Your task to perform on an android device: open a bookmark in the chrome app Image 0: 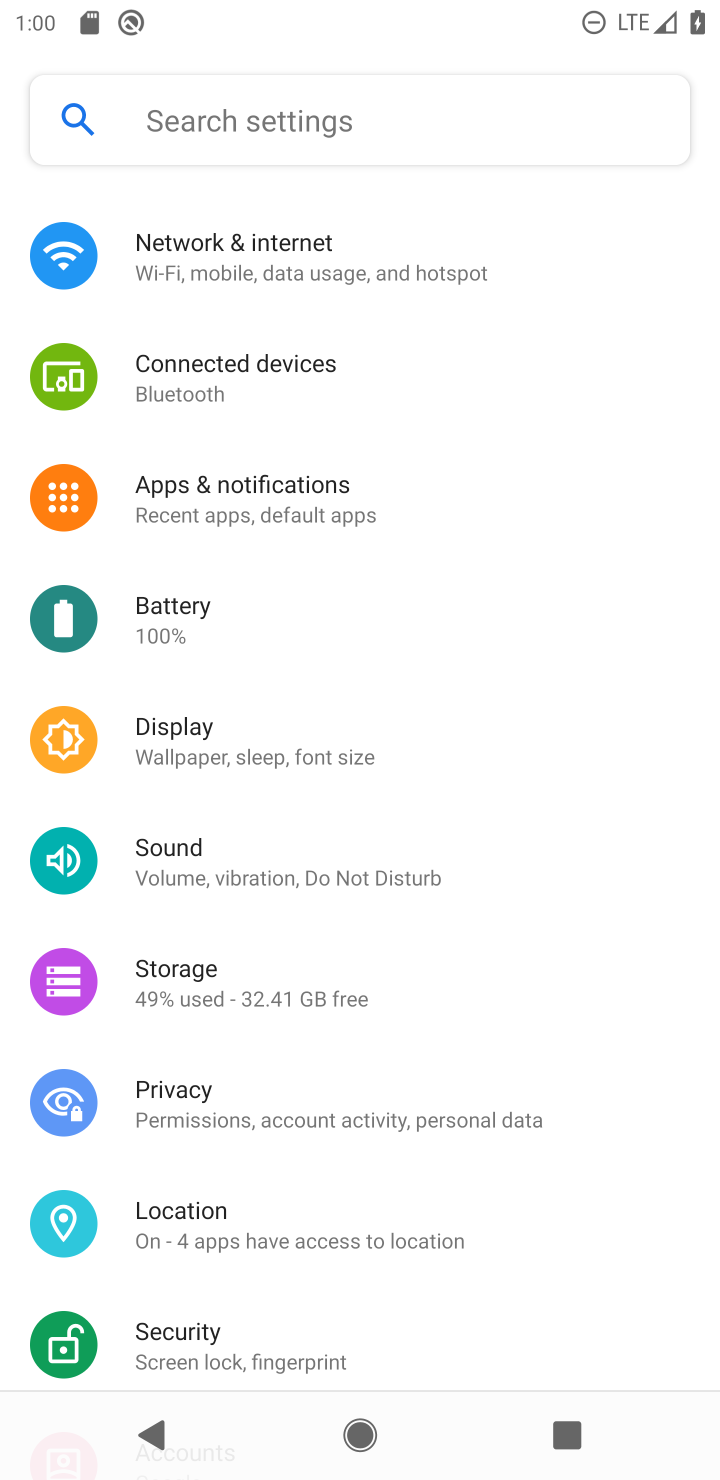
Step 0: drag from (664, 1219) to (523, 166)
Your task to perform on an android device: open a bookmark in the chrome app Image 1: 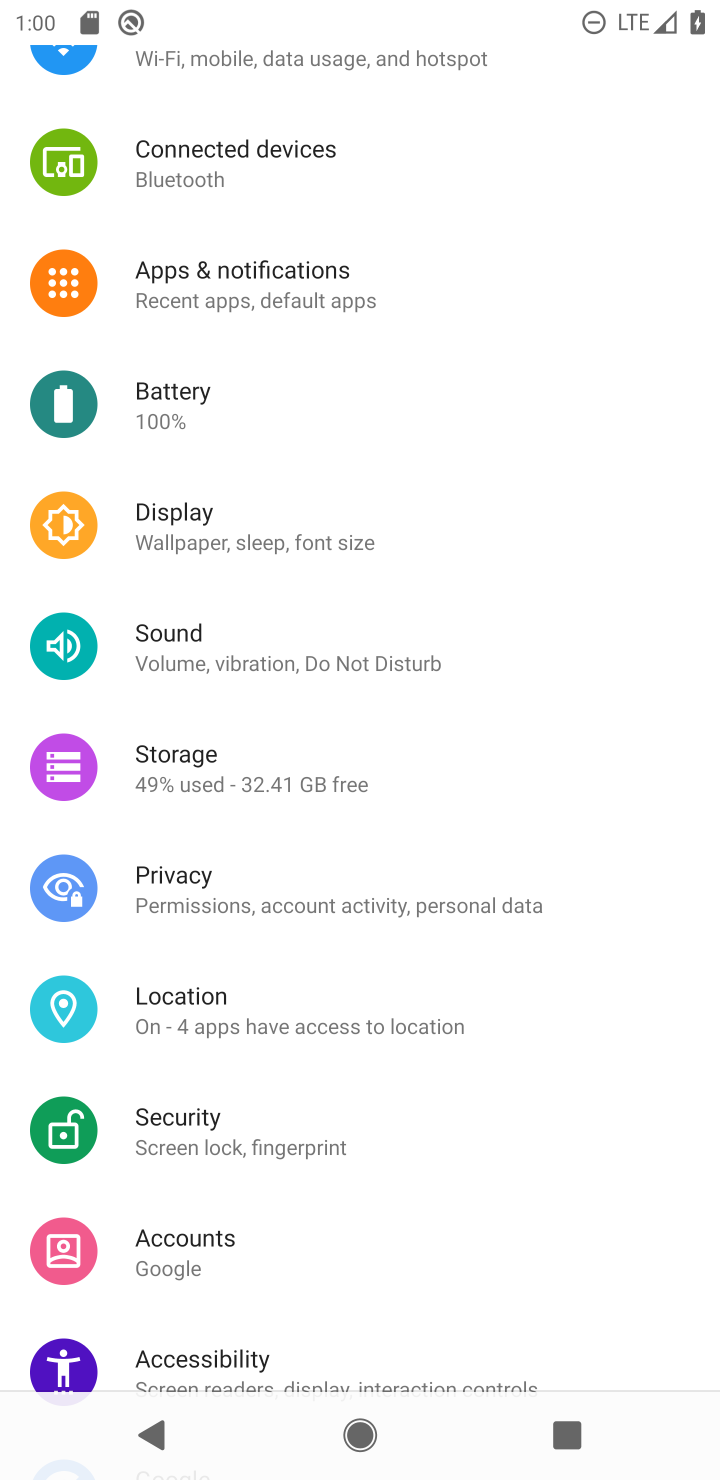
Step 1: press home button
Your task to perform on an android device: open a bookmark in the chrome app Image 2: 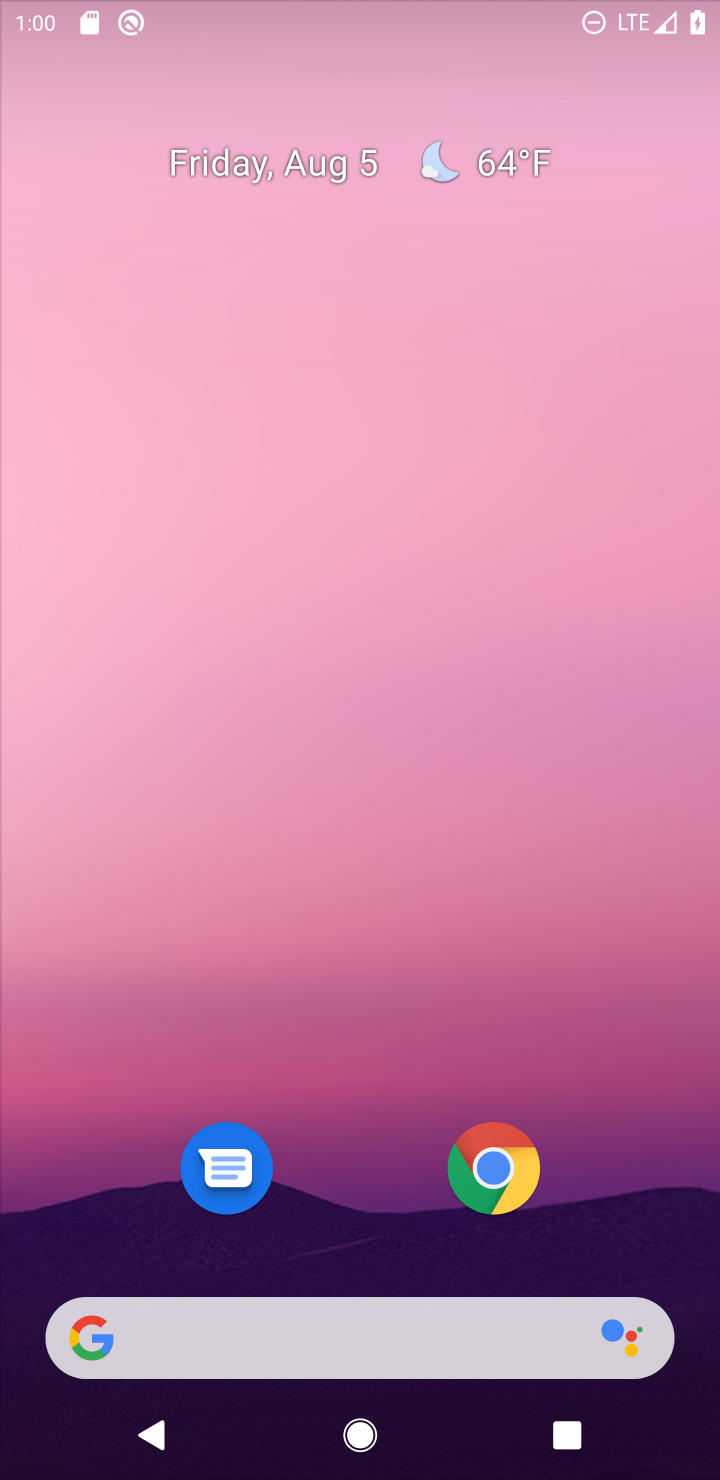
Step 2: drag from (661, 1215) to (321, 4)
Your task to perform on an android device: open a bookmark in the chrome app Image 3: 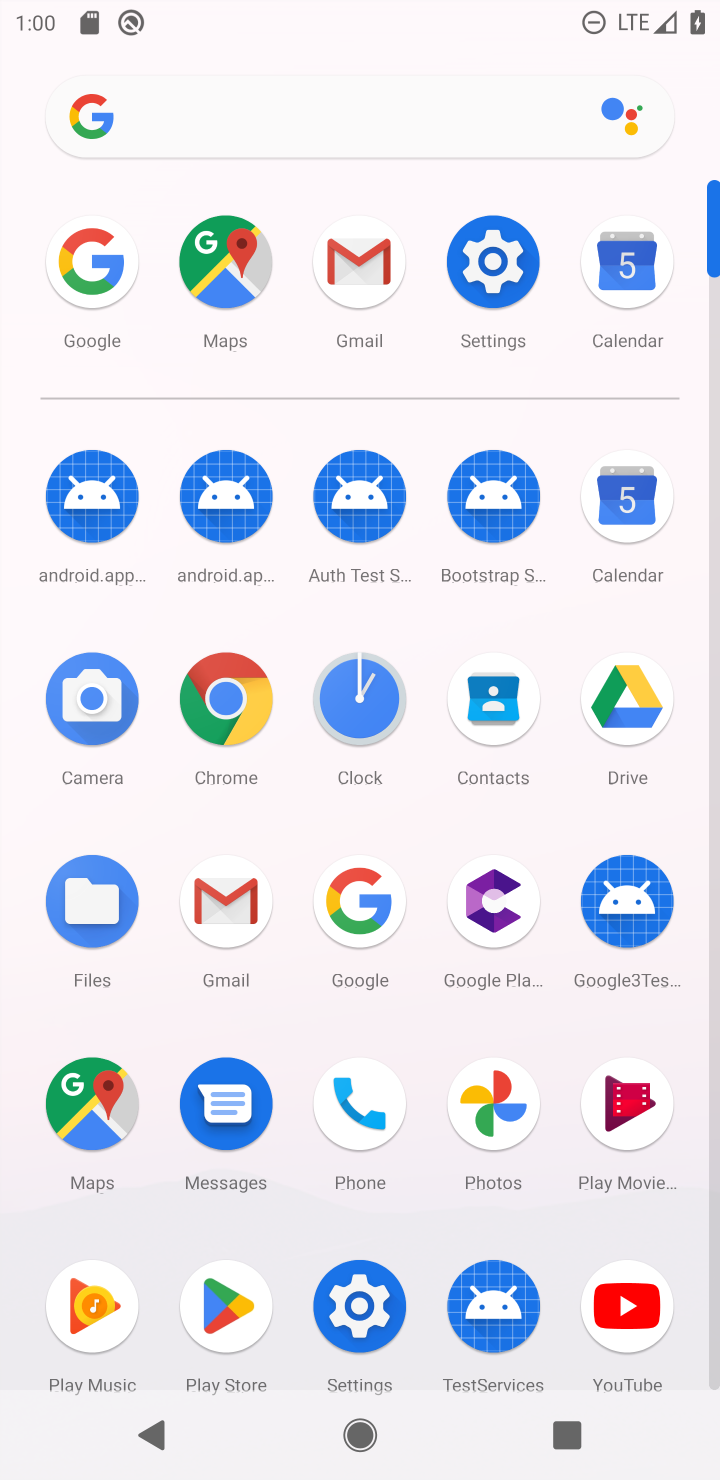
Step 3: click (214, 714)
Your task to perform on an android device: open a bookmark in the chrome app Image 4: 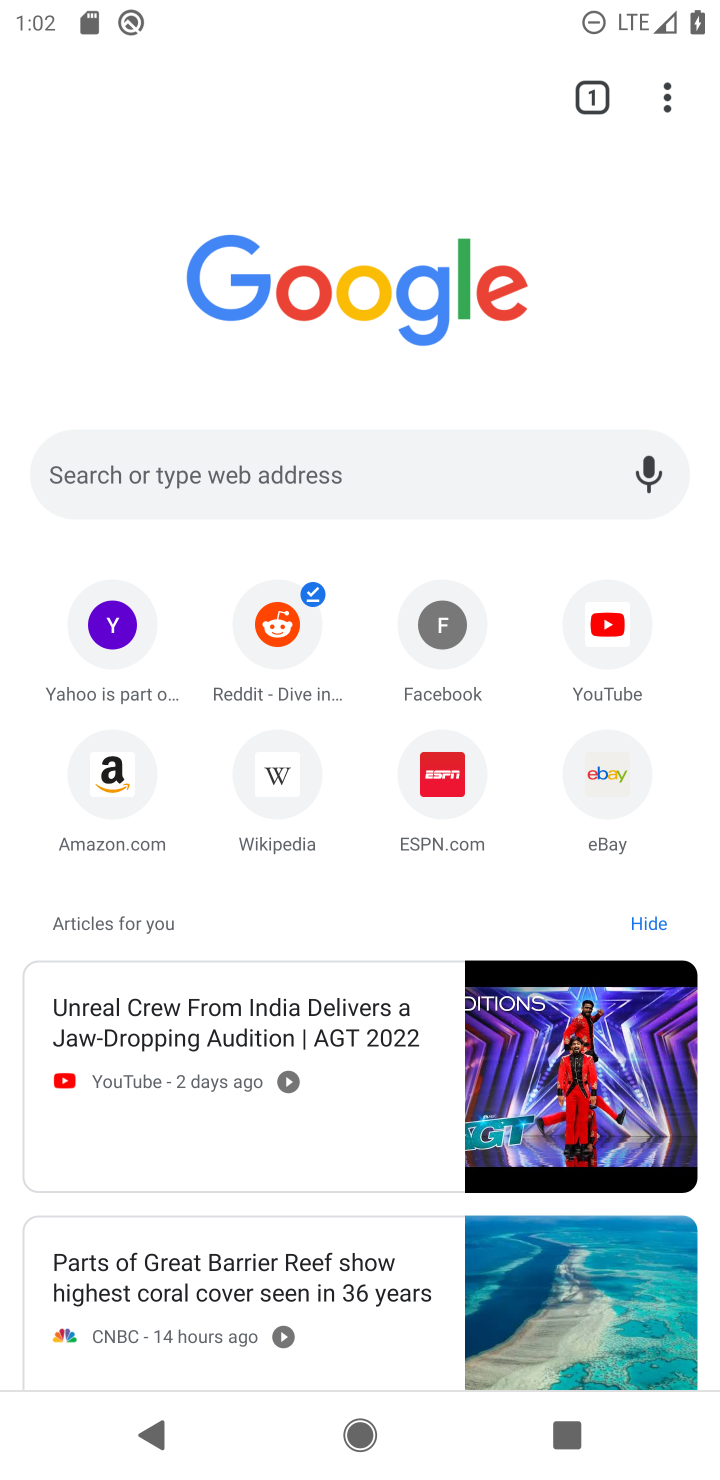
Step 4: click (659, 96)
Your task to perform on an android device: open a bookmark in the chrome app Image 5: 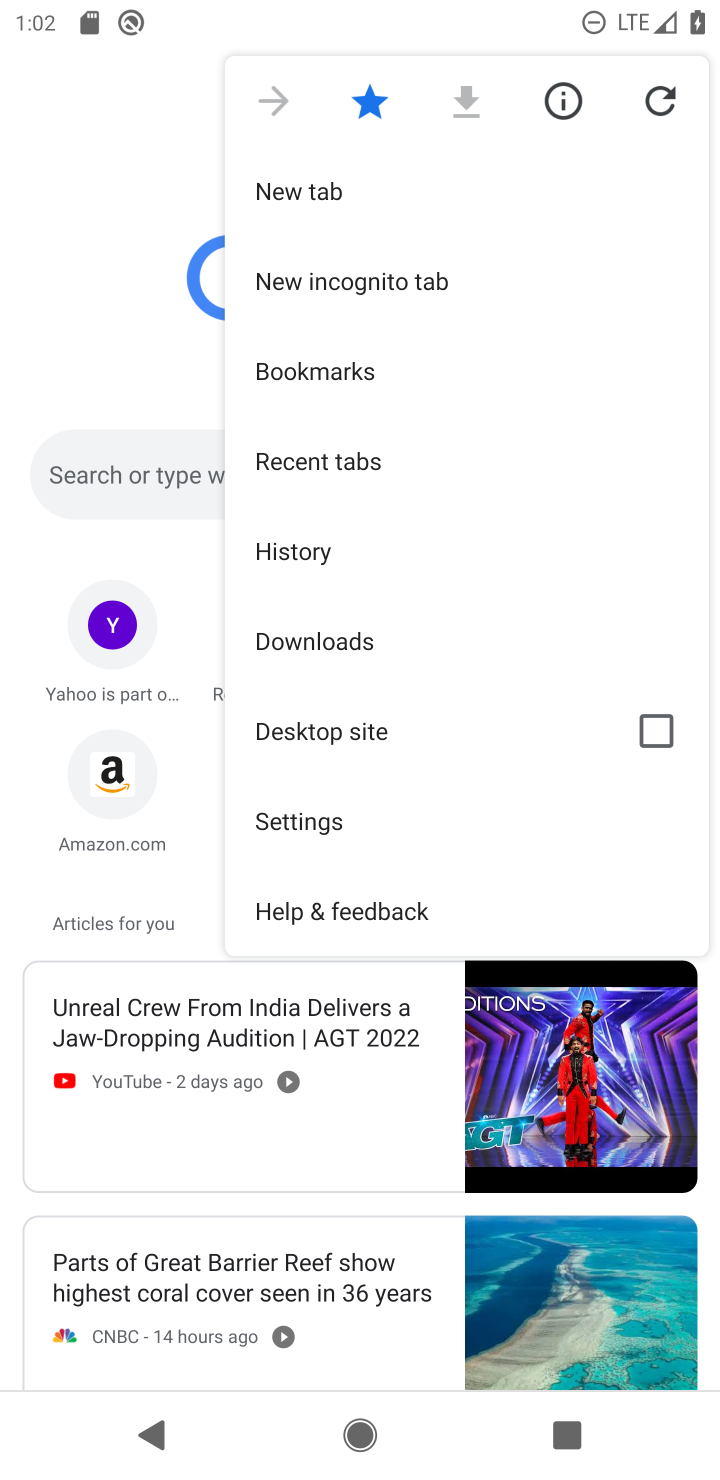
Step 5: click (308, 383)
Your task to perform on an android device: open a bookmark in the chrome app Image 6: 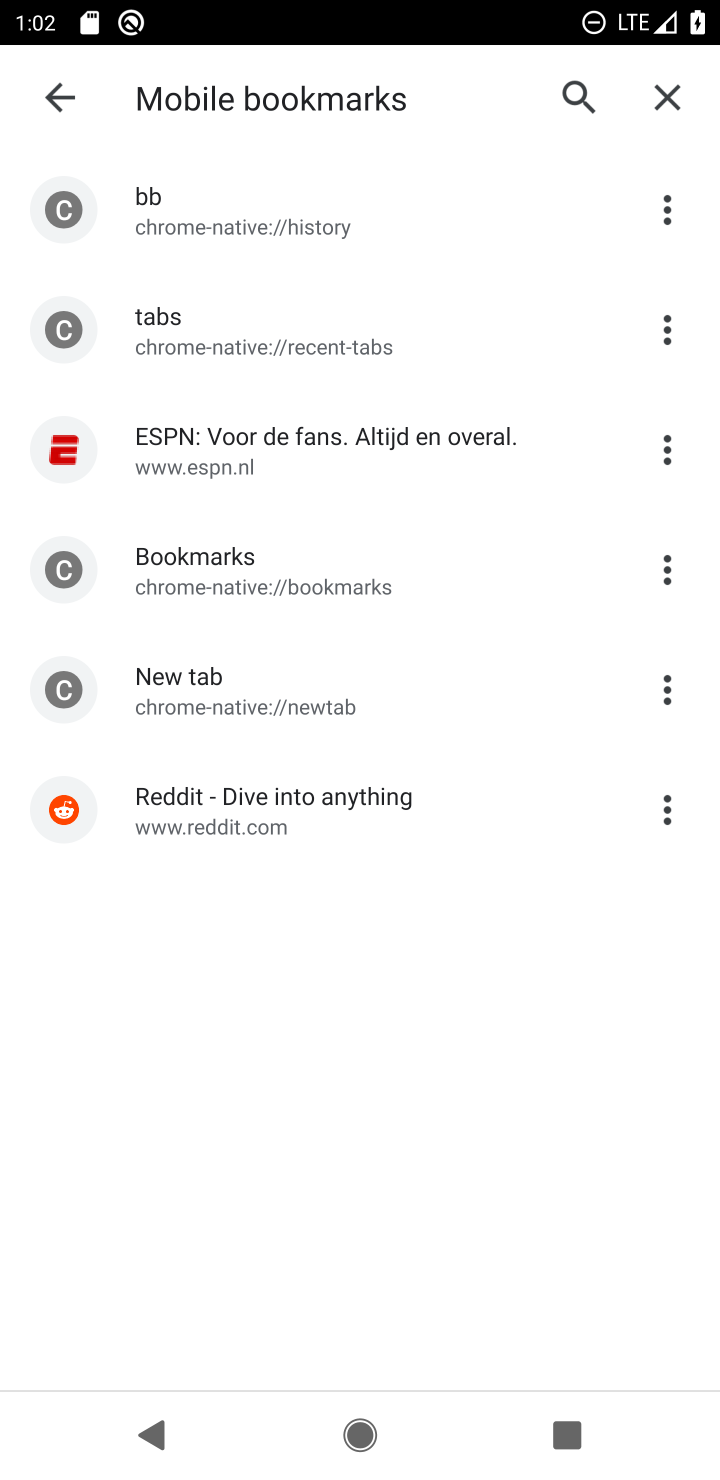
Step 6: task complete